Your task to perform on an android device: What's the weather today? Image 0: 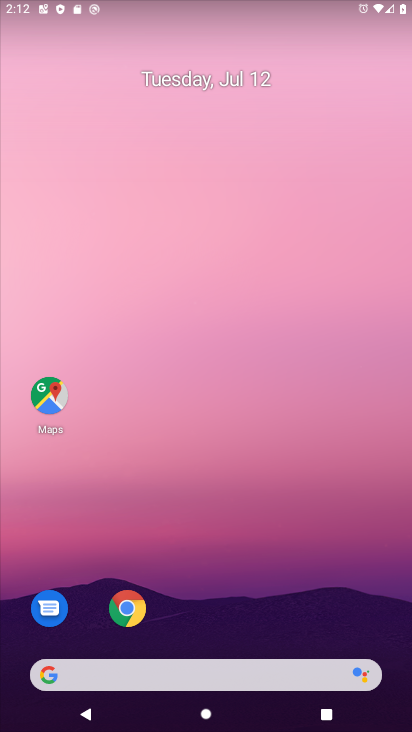
Step 0: drag from (315, 598) to (257, 138)
Your task to perform on an android device: What's the weather today? Image 1: 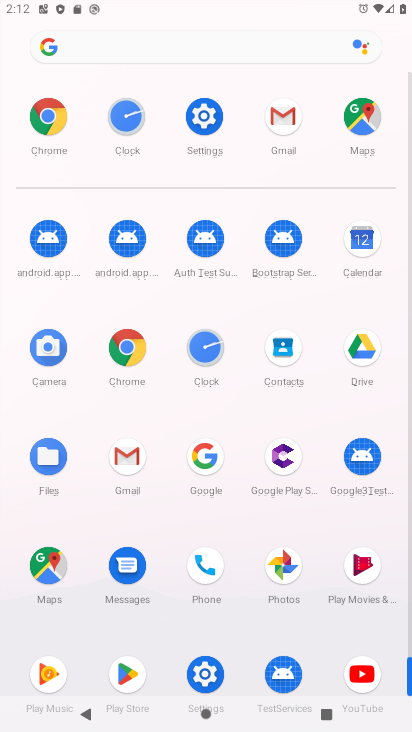
Step 1: click (130, 349)
Your task to perform on an android device: What's the weather today? Image 2: 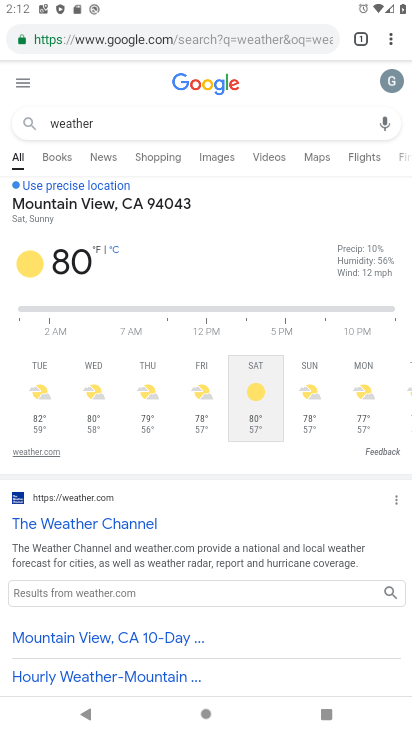
Step 2: click (35, 405)
Your task to perform on an android device: What's the weather today? Image 3: 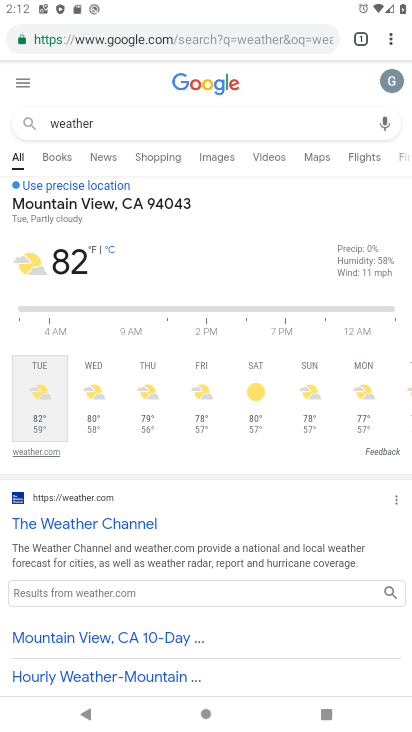
Step 3: task complete